Your task to perform on an android device: Open Amazon Image 0: 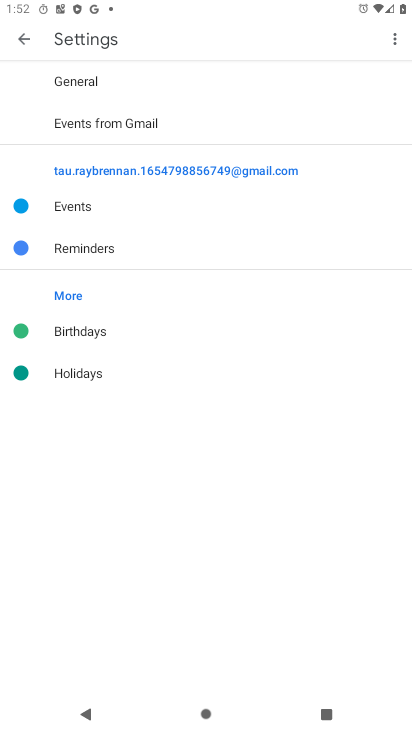
Step 0: press home button
Your task to perform on an android device: Open Amazon Image 1: 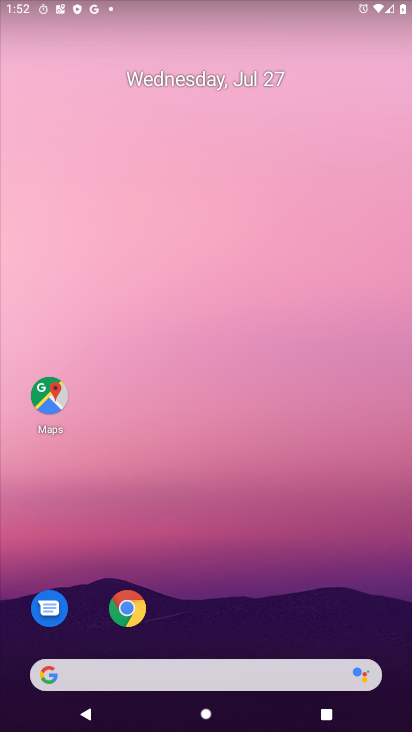
Step 1: click (124, 617)
Your task to perform on an android device: Open Amazon Image 2: 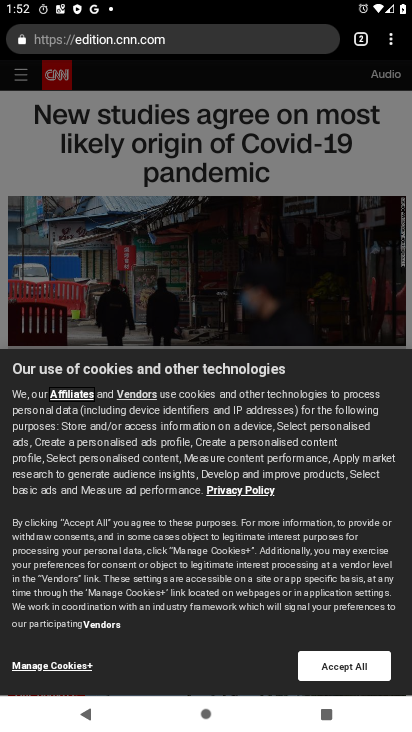
Step 2: click (160, 31)
Your task to perform on an android device: Open Amazon Image 3: 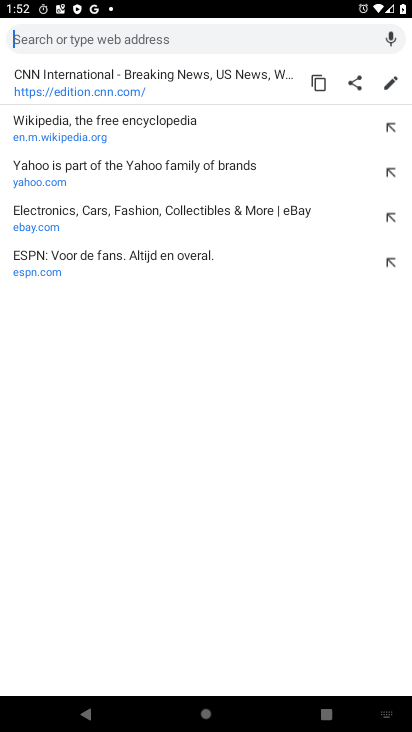
Step 3: type "www.amazon.com"
Your task to perform on an android device: Open Amazon Image 4: 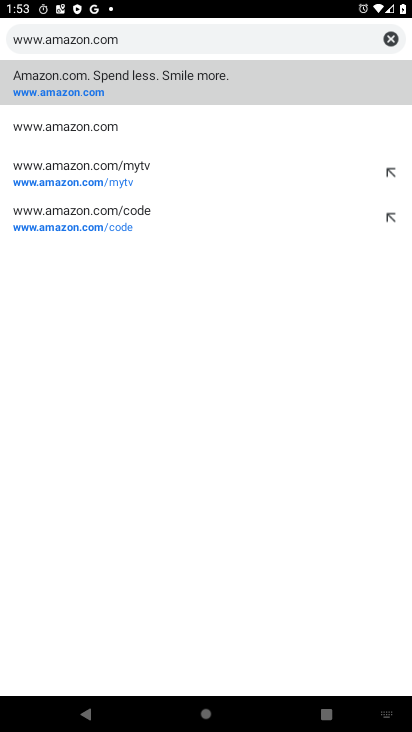
Step 4: click (81, 90)
Your task to perform on an android device: Open Amazon Image 5: 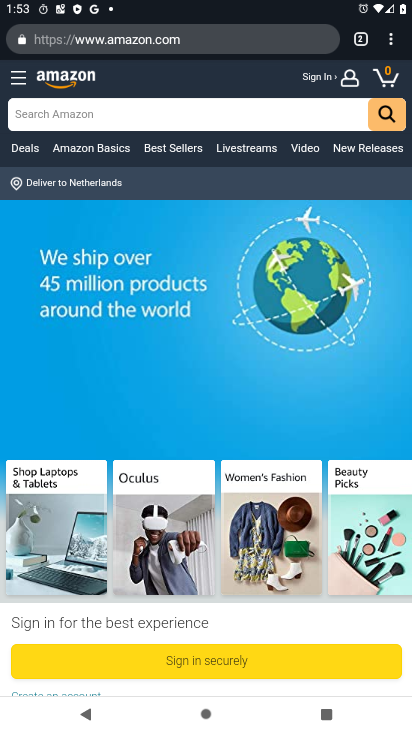
Step 5: task complete